Your task to perform on an android device: Open the phone app and click the voicemail tab. Image 0: 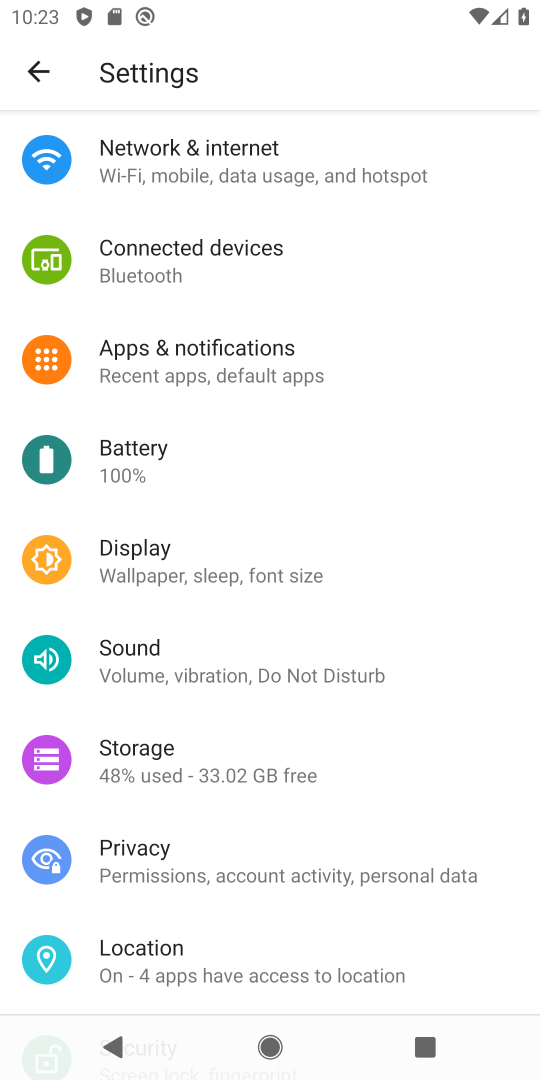
Step 0: press home button
Your task to perform on an android device: Open the phone app and click the voicemail tab. Image 1: 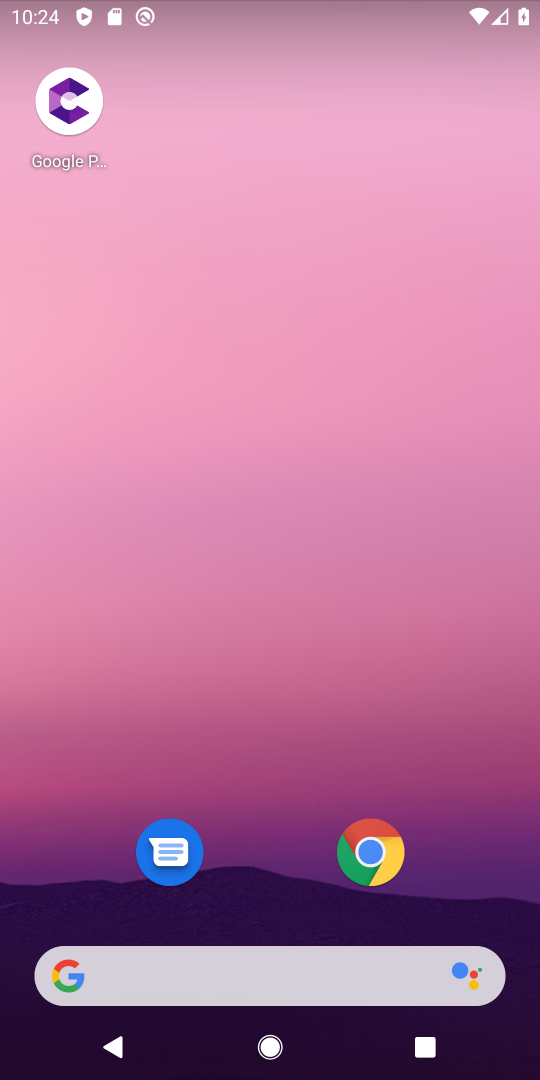
Step 1: drag from (295, 903) to (292, 75)
Your task to perform on an android device: Open the phone app and click the voicemail tab. Image 2: 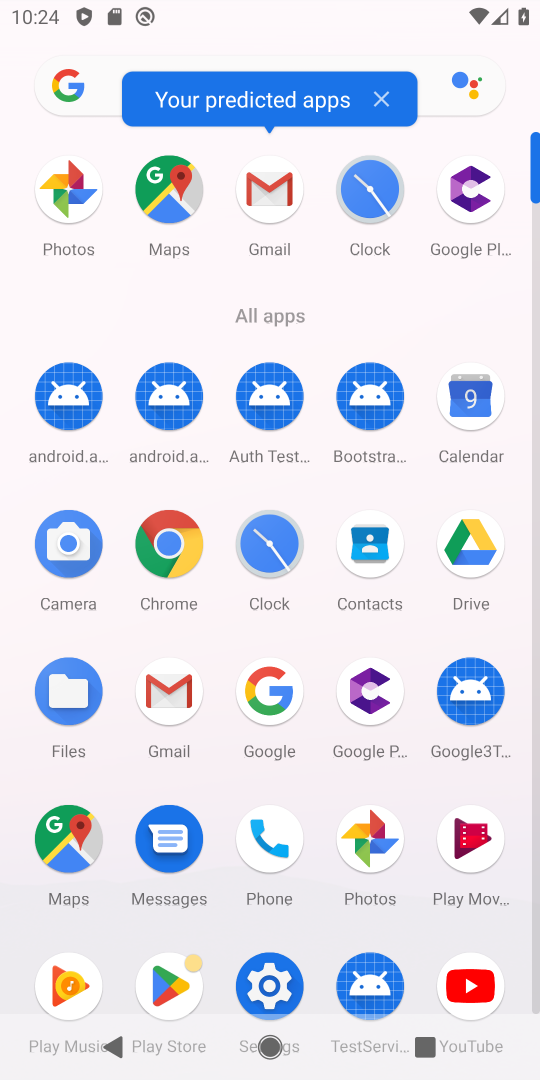
Step 2: click (268, 865)
Your task to perform on an android device: Open the phone app and click the voicemail tab. Image 3: 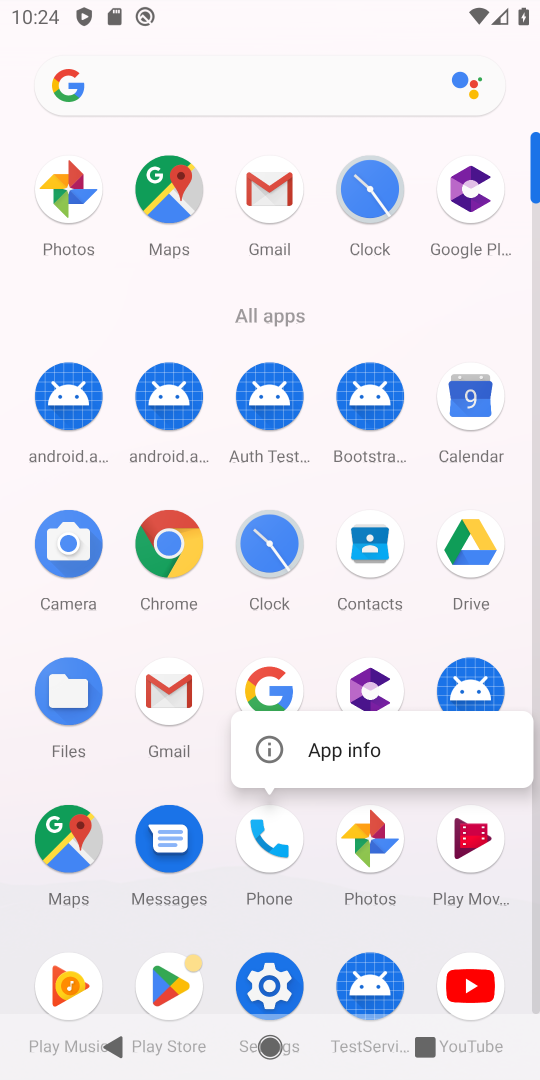
Step 3: click (265, 834)
Your task to perform on an android device: Open the phone app and click the voicemail tab. Image 4: 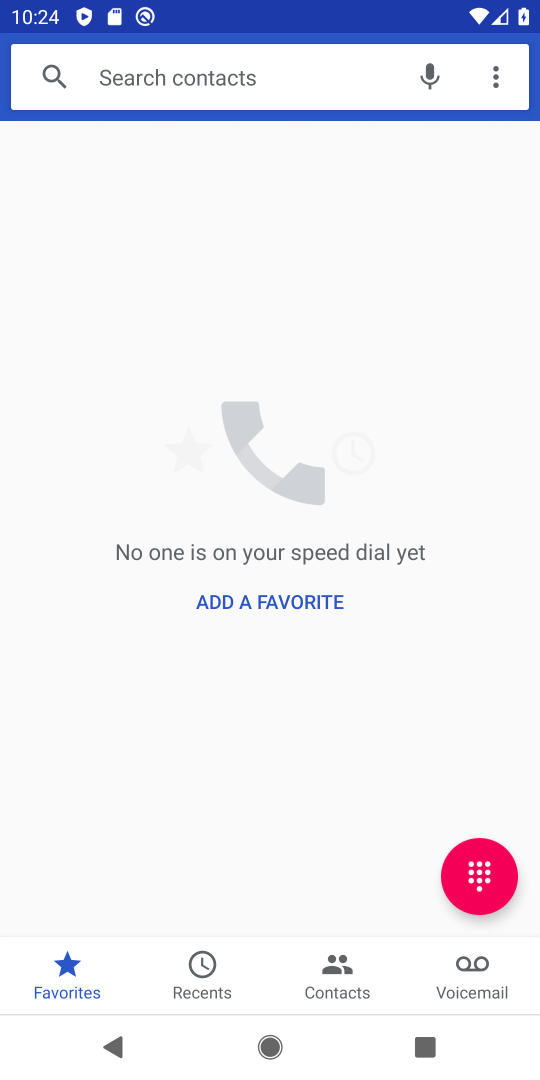
Step 4: click (454, 970)
Your task to perform on an android device: Open the phone app and click the voicemail tab. Image 5: 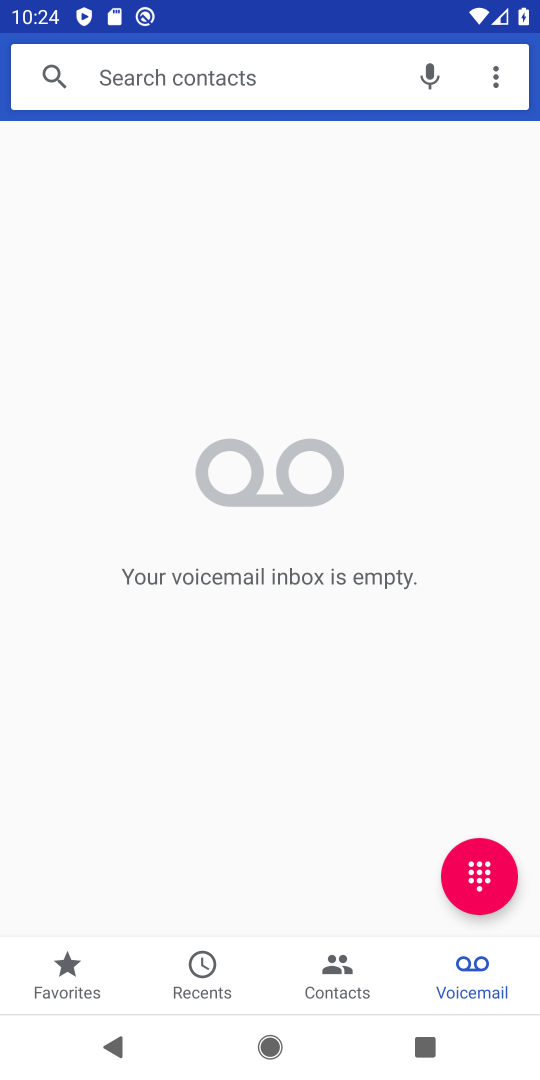
Step 5: task complete